Your task to perform on an android device: clear all cookies in the chrome app Image 0: 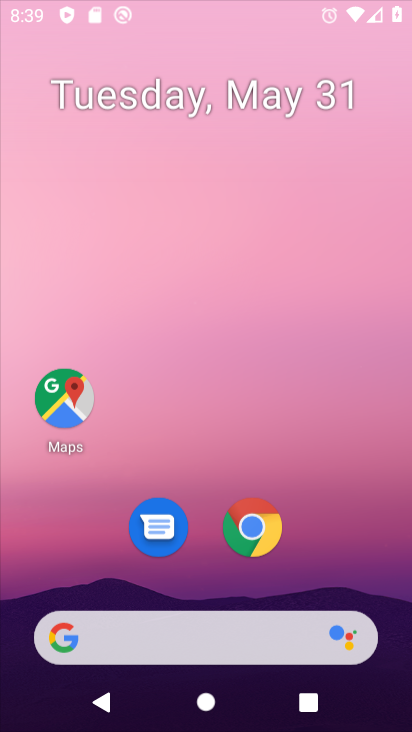
Step 0: click (247, 165)
Your task to perform on an android device: clear all cookies in the chrome app Image 1: 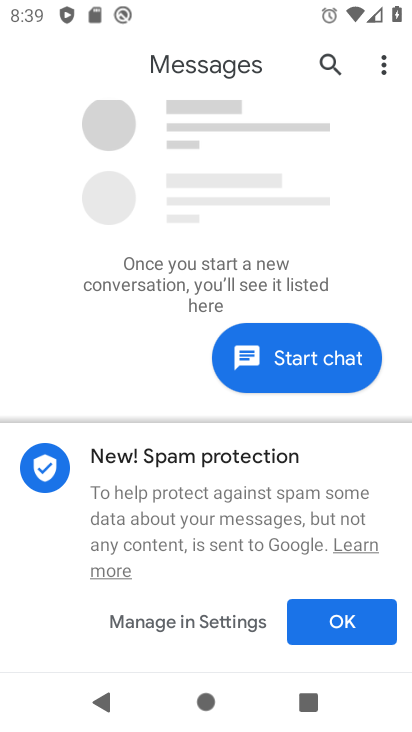
Step 1: press home button
Your task to perform on an android device: clear all cookies in the chrome app Image 2: 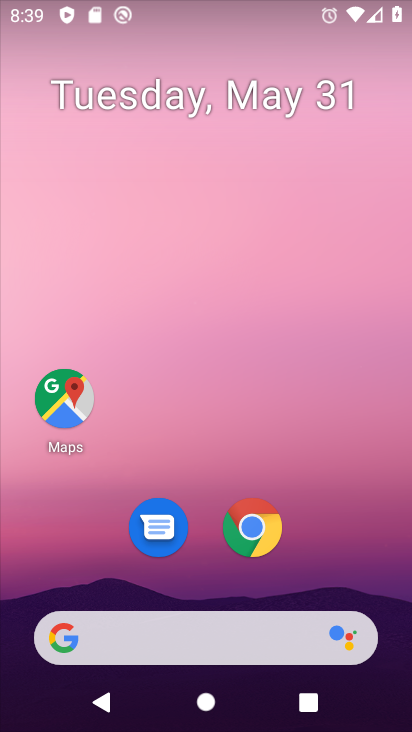
Step 2: drag from (176, 573) to (165, 177)
Your task to perform on an android device: clear all cookies in the chrome app Image 3: 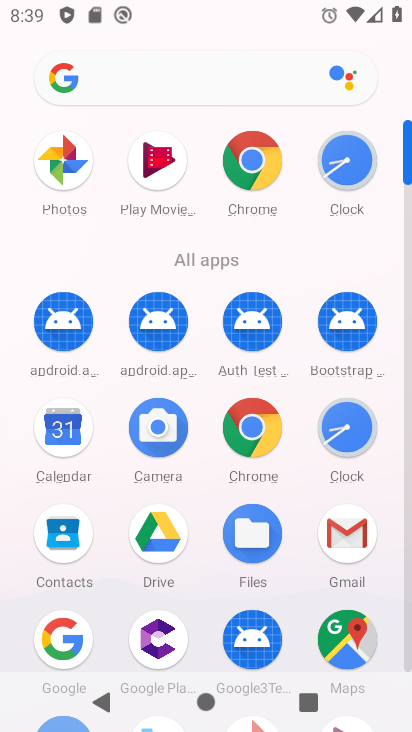
Step 3: drag from (301, 584) to (280, 348)
Your task to perform on an android device: clear all cookies in the chrome app Image 4: 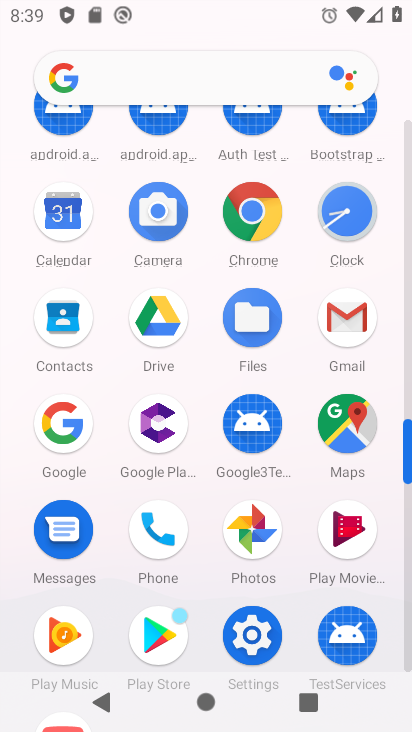
Step 4: click (254, 647)
Your task to perform on an android device: clear all cookies in the chrome app Image 5: 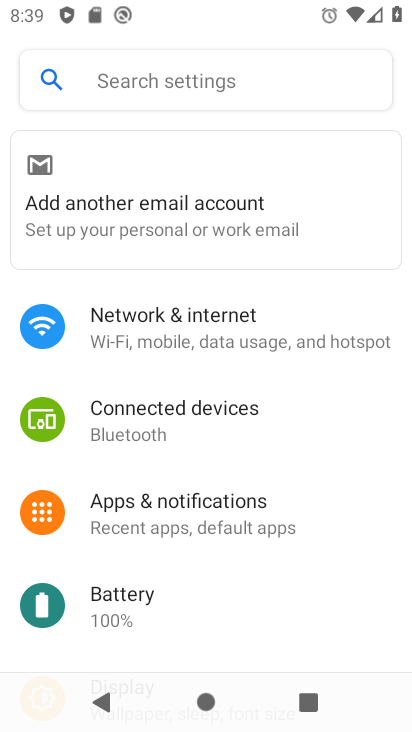
Step 5: click (266, 326)
Your task to perform on an android device: clear all cookies in the chrome app Image 6: 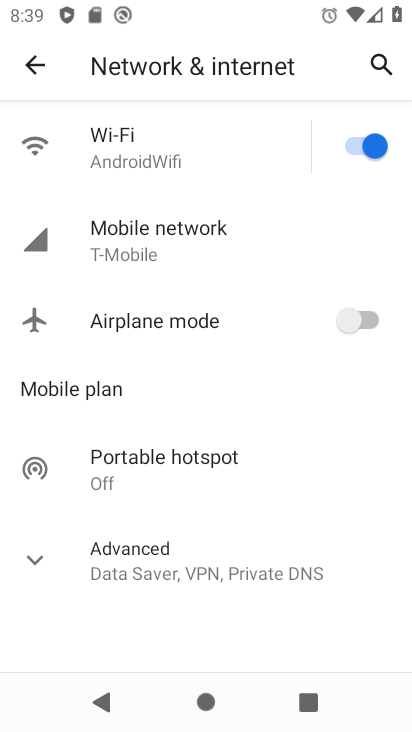
Step 6: task complete